Your task to perform on an android device: read, delete, or share a saved page in the chrome app Image 0: 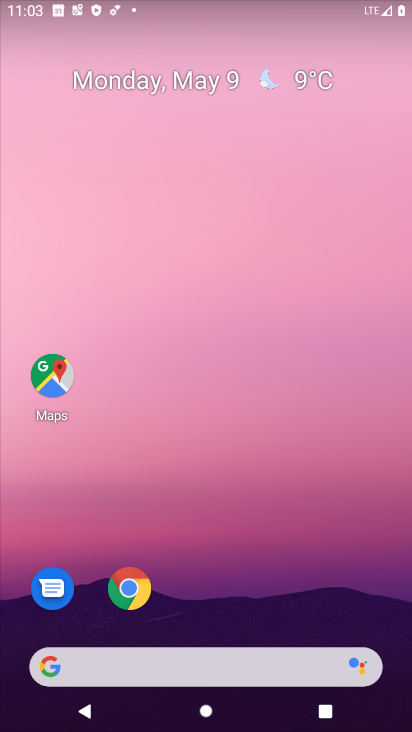
Step 0: drag from (164, 670) to (315, 106)
Your task to perform on an android device: read, delete, or share a saved page in the chrome app Image 1: 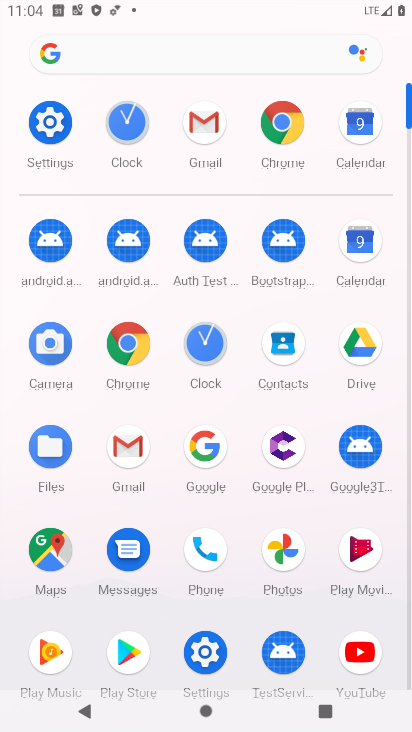
Step 1: click (280, 125)
Your task to perform on an android device: read, delete, or share a saved page in the chrome app Image 2: 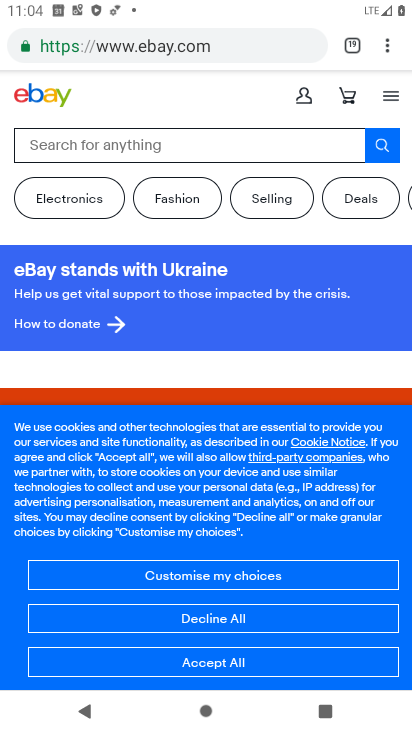
Step 2: drag from (387, 52) to (249, 292)
Your task to perform on an android device: read, delete, or share a saved page in the chrome app Image 3: 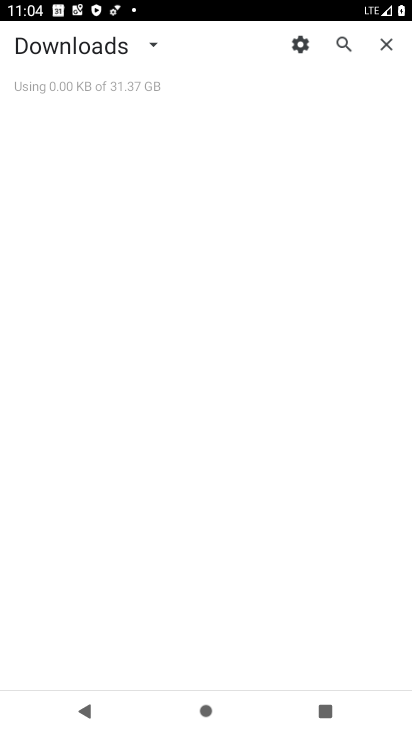
Step 3: click (124, 42)
Your task to perform on an android device: read, delete, or share a saved page in the chrome app Image 4: 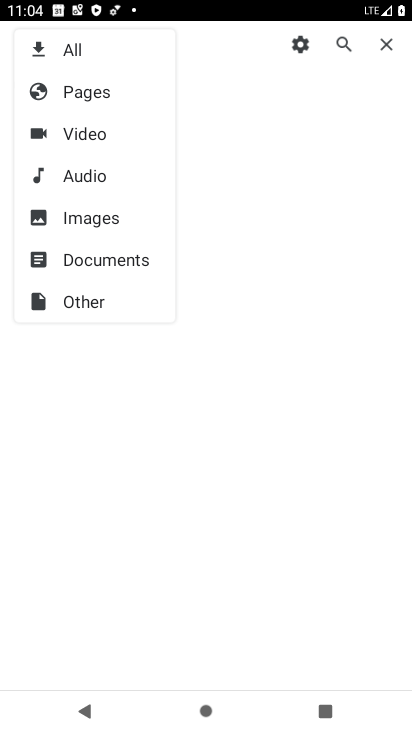
Step 4: click (89, 93)
Your task to perform on an android device: read, delete, or share a saved page in the chrome app Image 5: 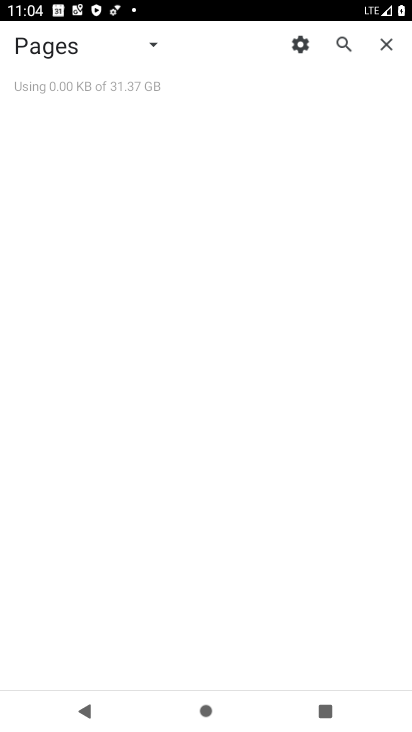
Step 5: task complete